Your task to perform on an android device: Go to Maps Image 0: 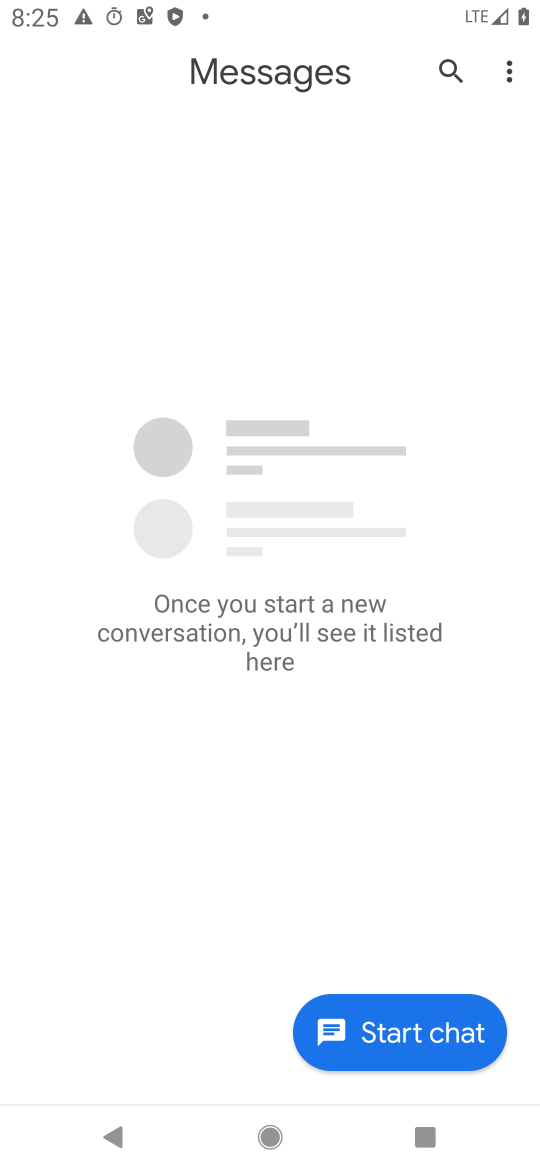
Step 0: press home button
Your task to perform on an android device: Go to Maps Image 1: 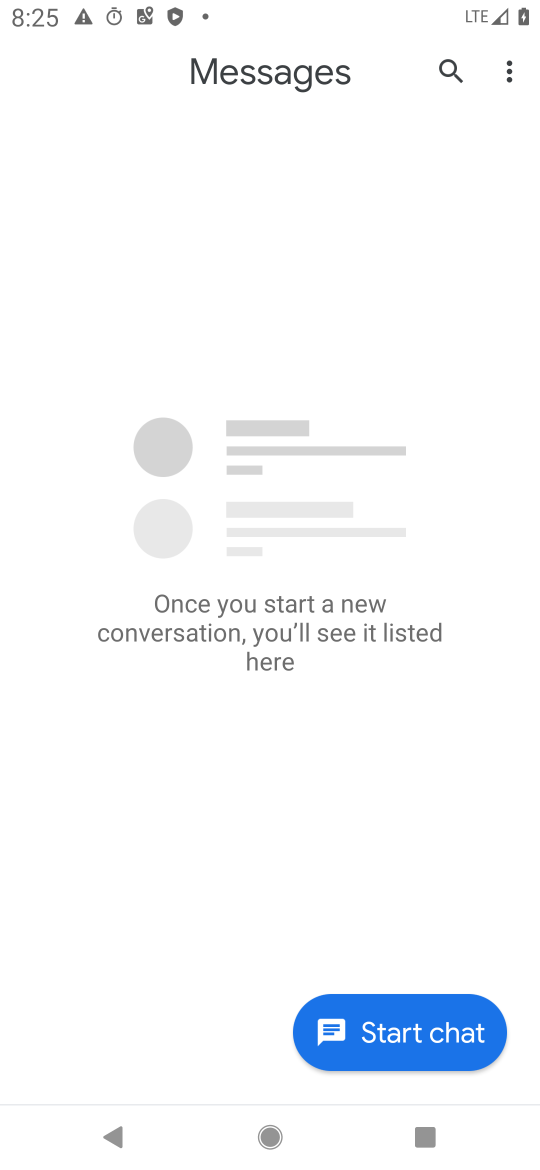
Step 1: press home button
Your task to perform on an android device: Go to Maps Image 2: 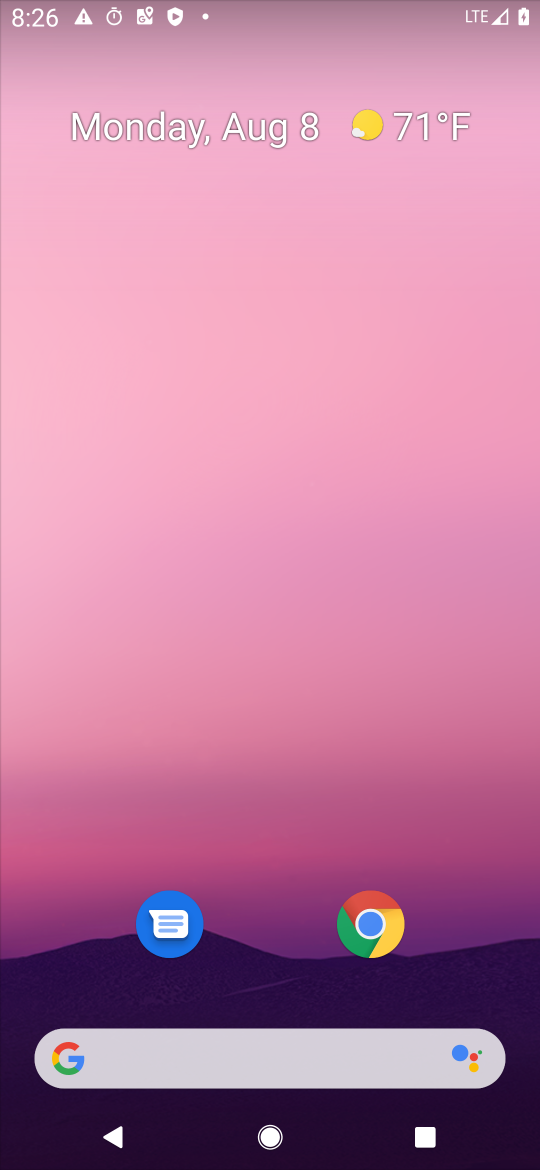
Step 2: drag from (272, 1002) to (2, 33)
Your task to perform on an android device: Go to Maps Image 3: 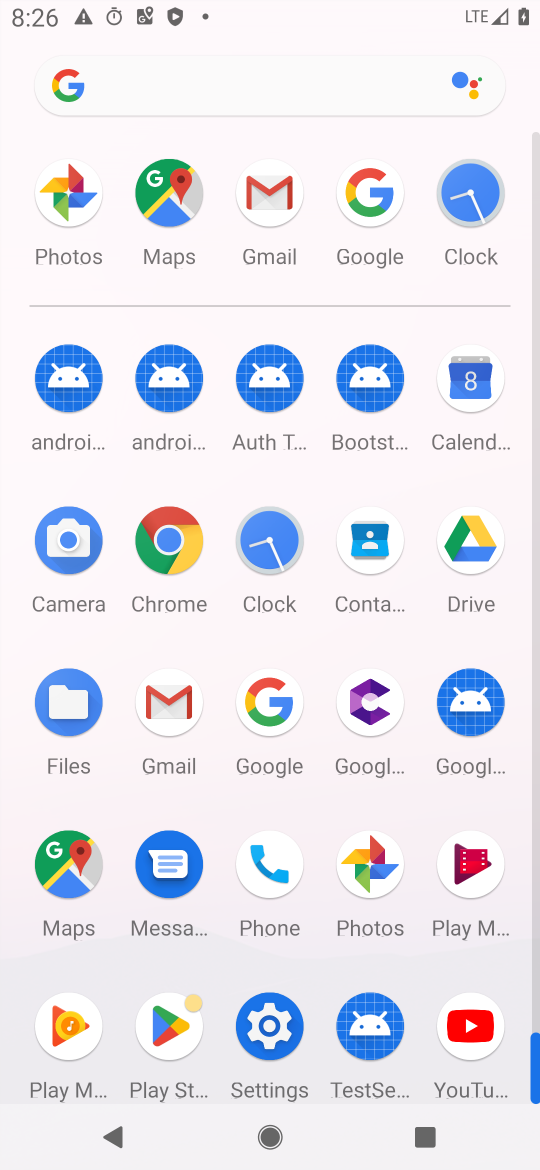
Step 3: click (160, 205)
Your task to perform on an android device: Go to Maps Image 4: 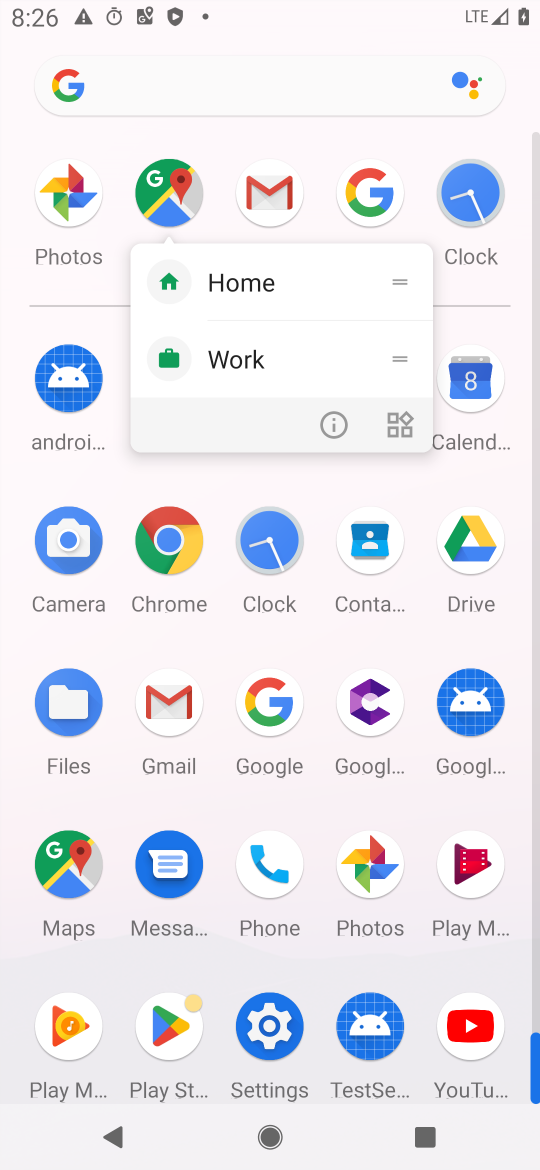
Step 4: click (324, 425)
Your task to perform on an android device: Go to Maps Image 5: 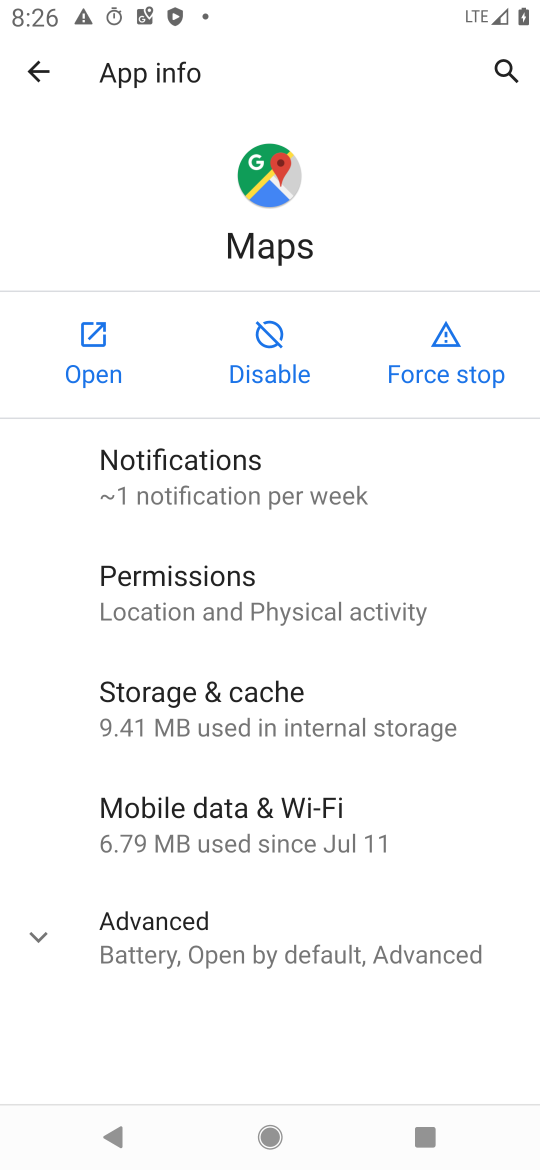
Step 5: click (85, 329)
Your task to perform on an android device: Go to Maps Image 6: 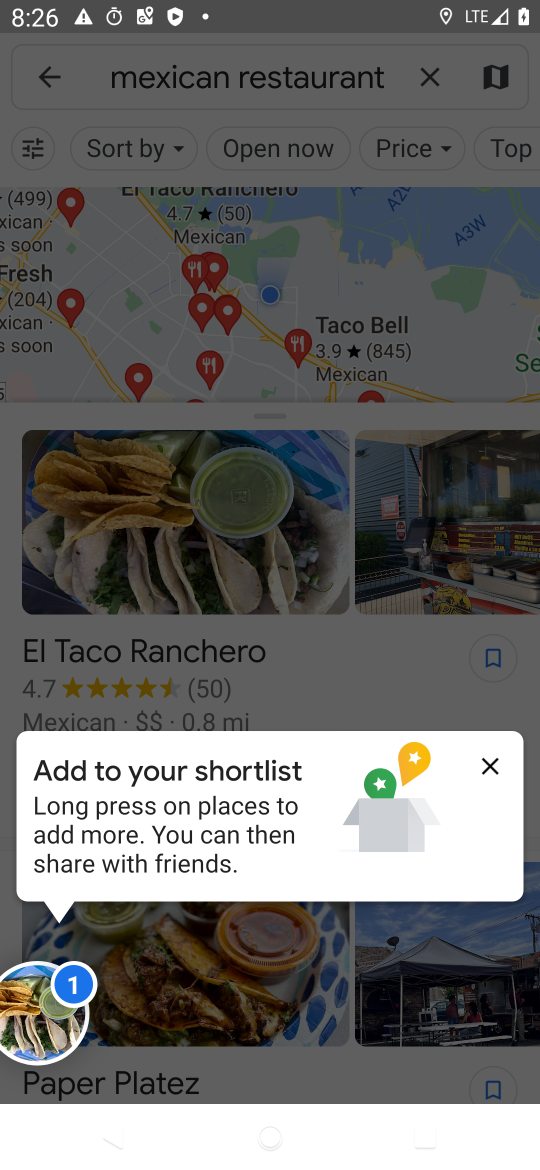
Step 6: click (484, 766)
Your task to perform on an android device: Go to Maps Image 7: 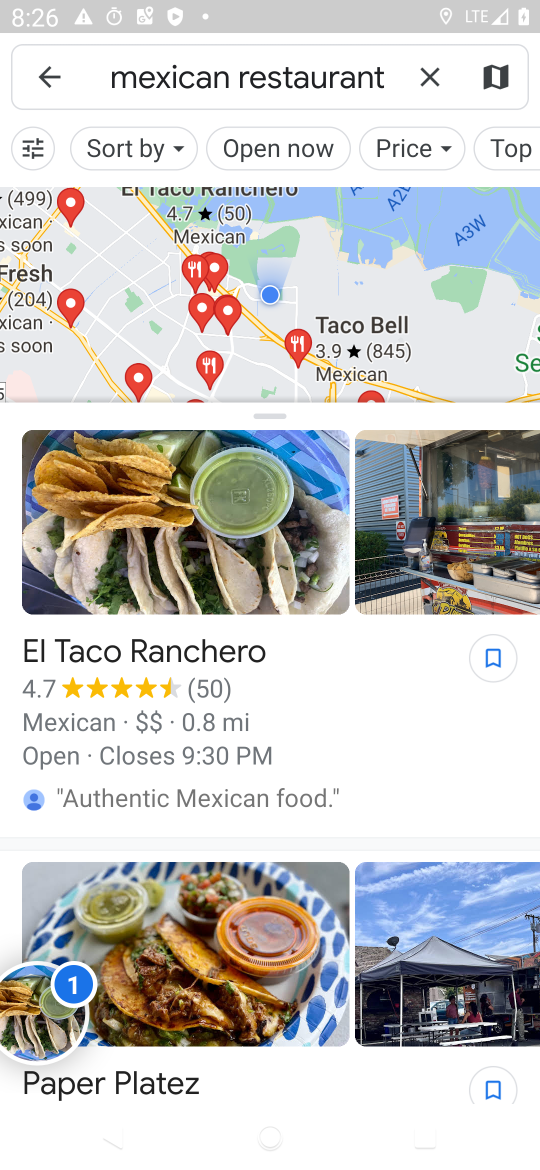
Step 7: task complete